Your task to perform on an android device: Open the stopwatch Image 0: 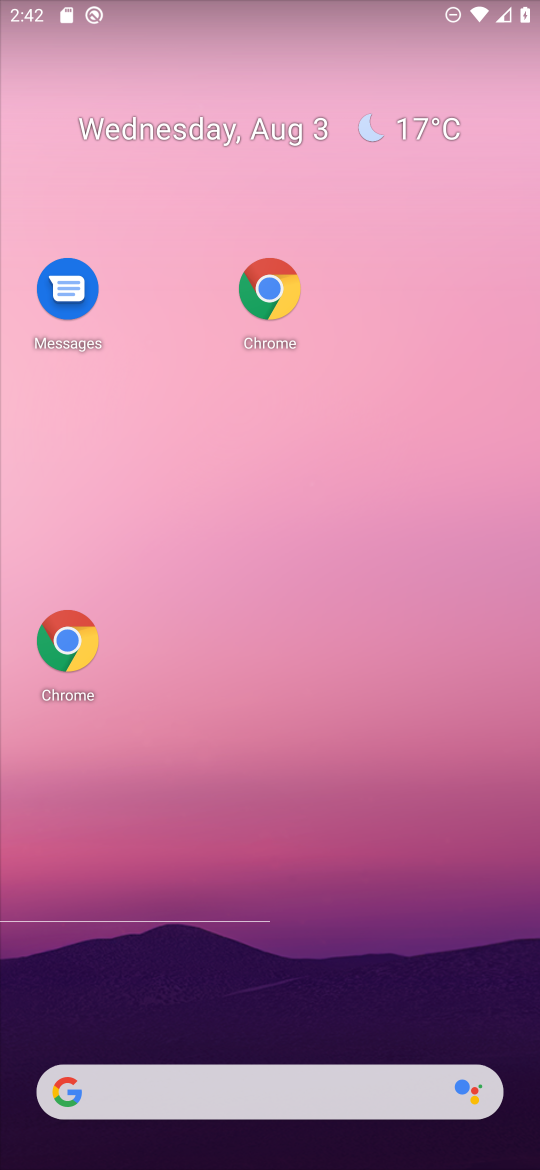
Step 0: drag from (327, 1002) to (432, 8)
Your task to perform on an android device: Open the stopwatch Image 1: 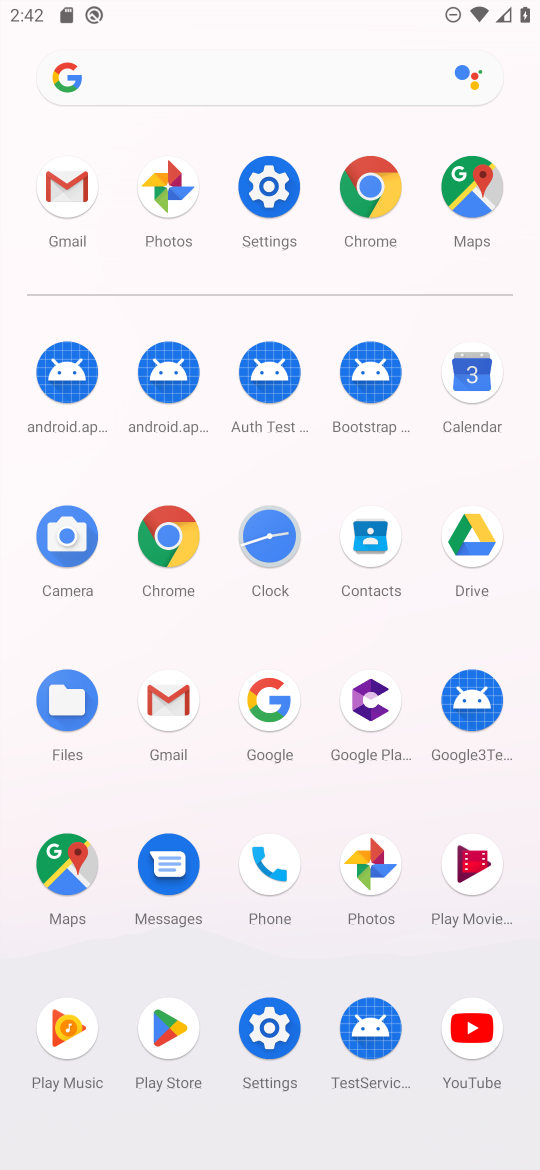
Step 1: click (279, 523)
Your task to perform on an android device: Open the stopwatch Image 2: 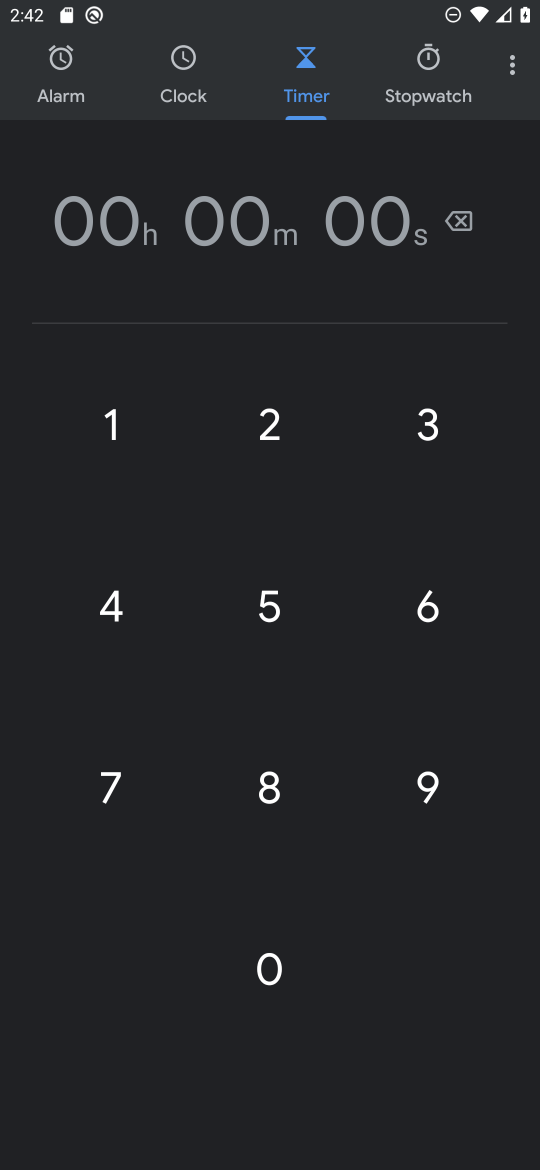
Step 2: click (438, 107)
Your task to perform on an android device: Open the stopwatch Image 3: 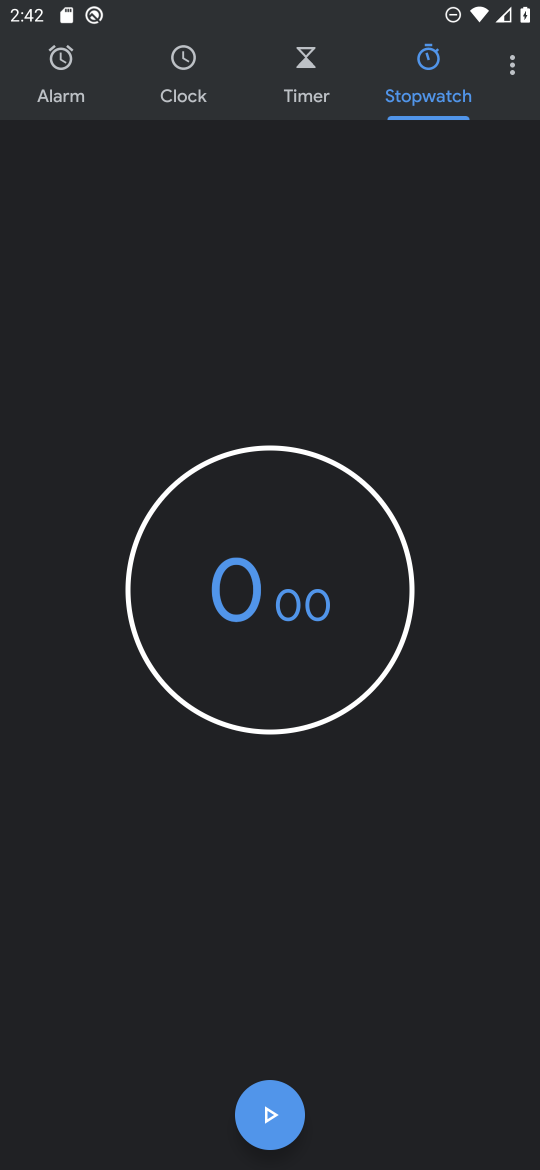
Step 3: task complete